Your task to perform on an android device: turn off location Image 0: 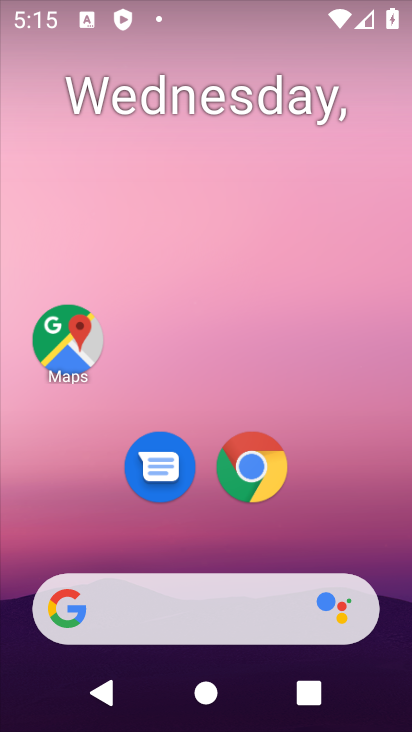
Step 0: drag from (299, 438) to (211, 111)
Your task to perform on an android device: turn off location Image 1: 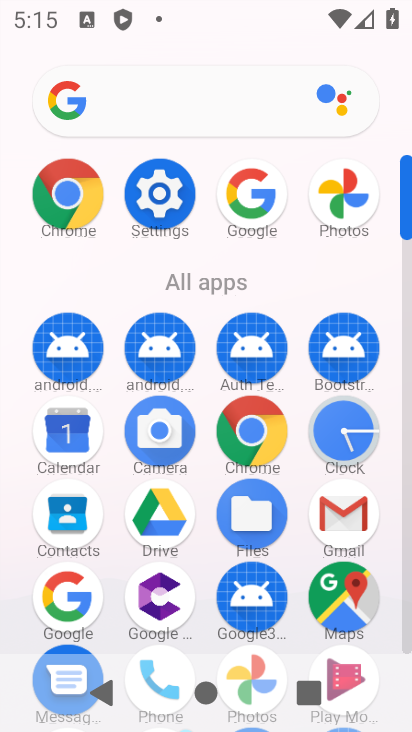
Step 1: click (178, 198)
Your task to perform on an android device: turn off location Image 2: 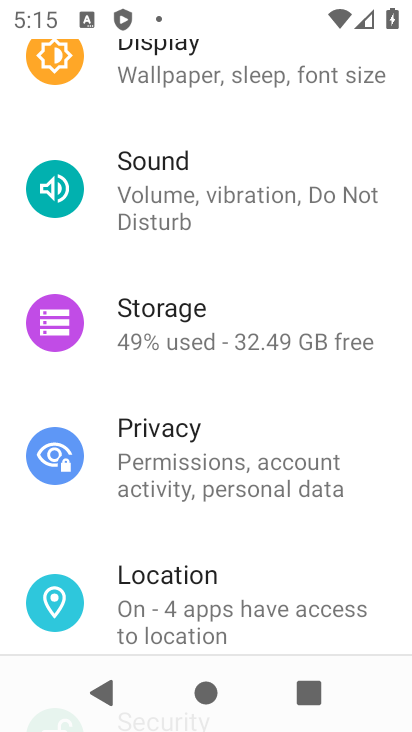
Step 2: click (262, 593)
Your task to perform on an android device: turn off location Image 3: 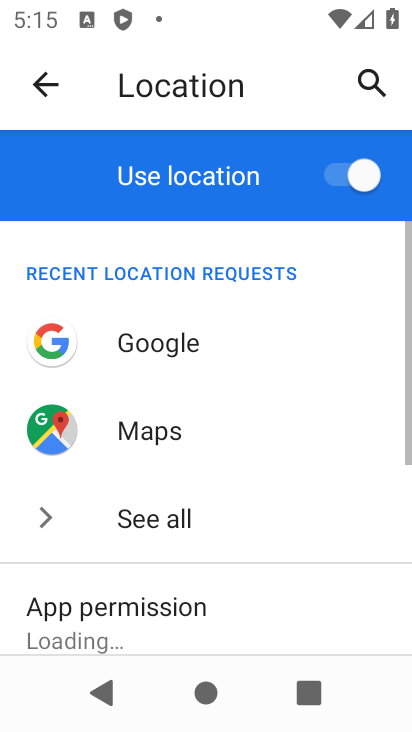
Step 3: click (349, 160)
Your task to perform on an android device: turn off location Image 4: 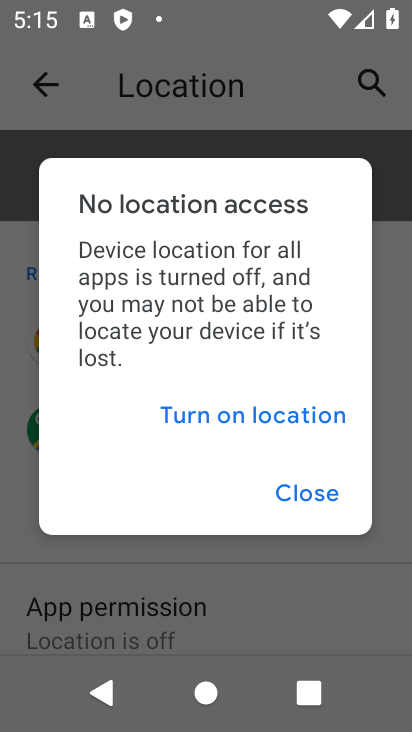
Step 4: click (317, 489)
Your task to perform on an android device: turn off location Image 5: 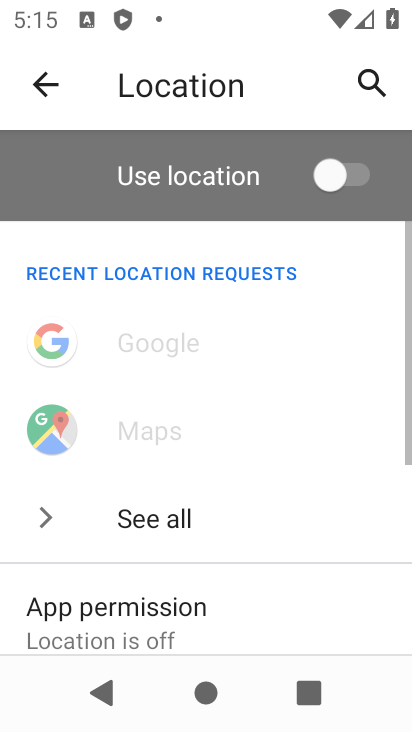
Step 5: task complete